Your task to perform on an android device: turn pop-ups on in chrome Image 0: 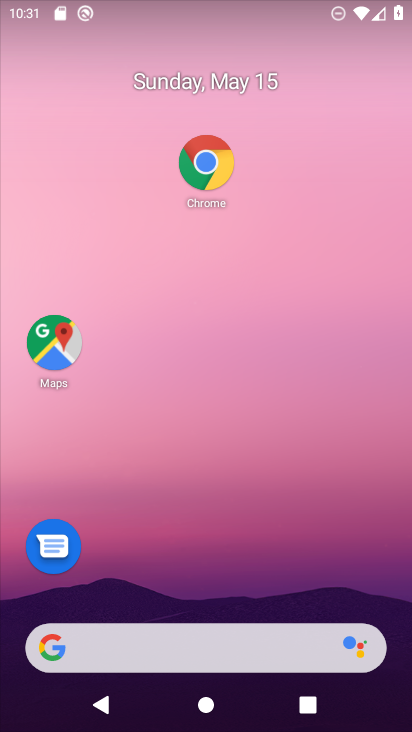
Step 0: drag from (273, 591) to (321, 267)
Your task to perform on an android device: turn pop-ups on in chrome Image 1: 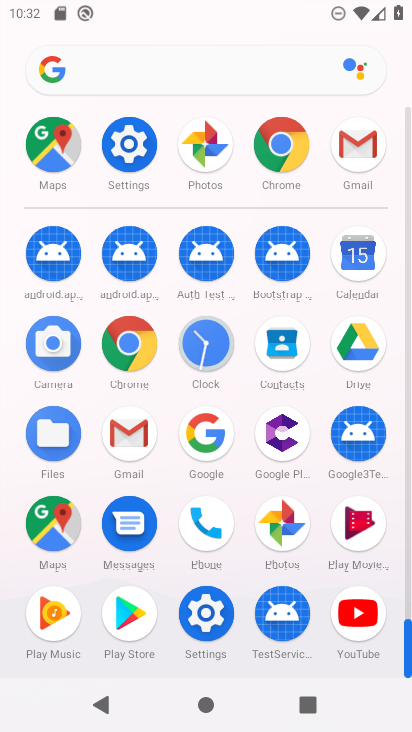
Step 1: click (291, 139)
Your task to perform on an android device: turn pop-ups on in chrome Image 2: 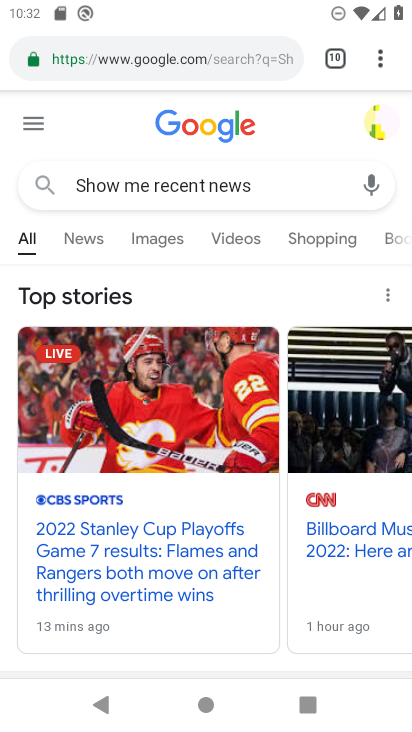
Step 2: click (360, 59)
Your task to perform on an android device: turn pop-ups on in chrome Image 3: 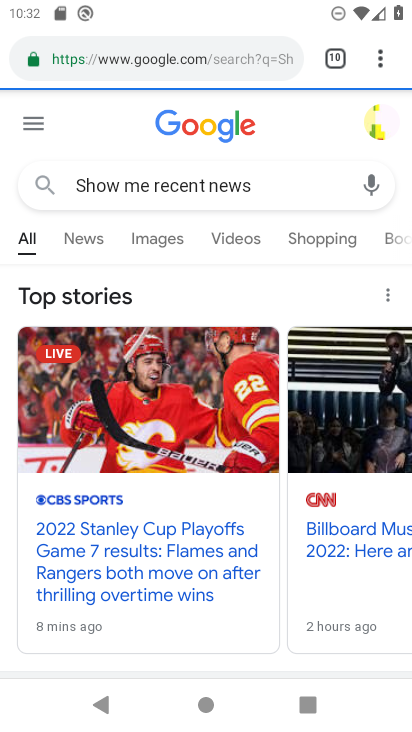
Step 3: click (369, 60)
Your task to perform on an android device: turn pop-ups on in chrome Image 4: 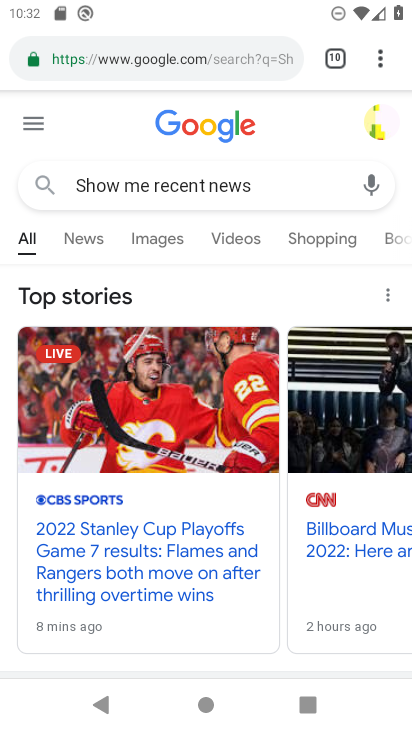
Step 4: click (373, 58)
Your task to perform on an android device: turn pop-ups on in chrome Image 5: 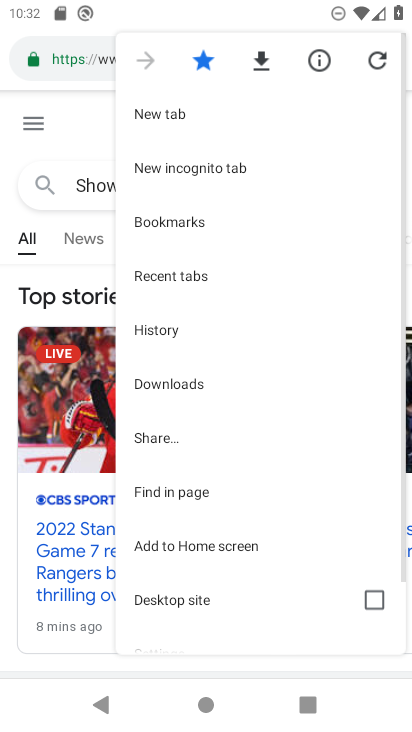
Step 5: drag from (196, 565) to (227, 221)
Your task to perform on an android device: turn pop-ups on in chrome Image 6: 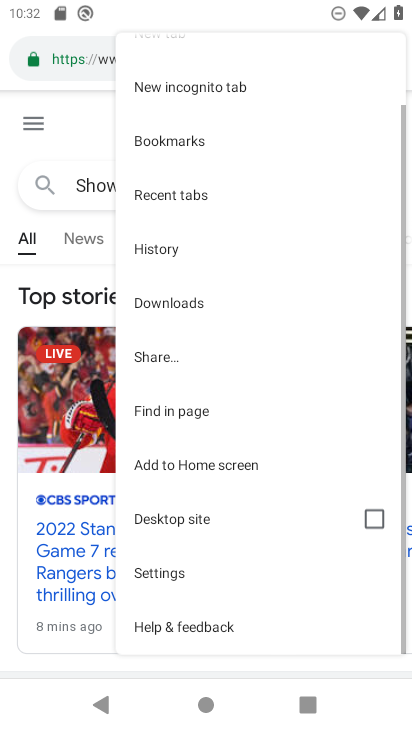
Step 6: click (154, 568)
Your task to perform on an android device: turn pop-ups on in chrome Image 7: 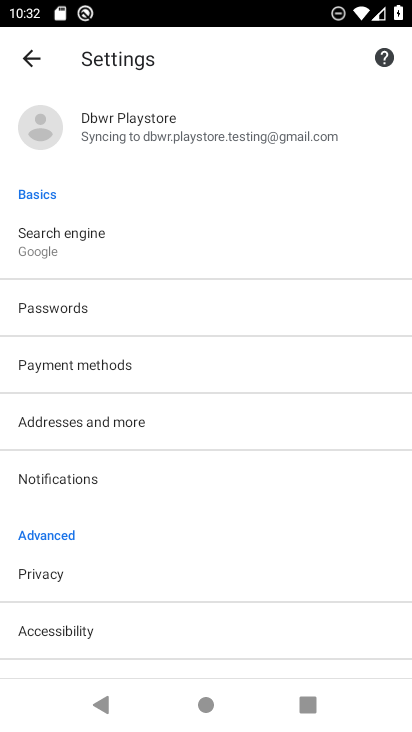
Step 7: drag from (166, 562) to (249, 171)
Your task to perform on an android device: turn pop-ups on in chrome Image 8: 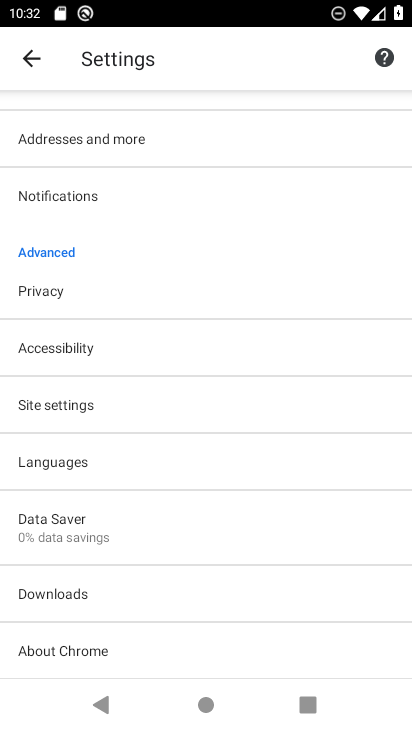
Step 8: click (151, 408)
Your task to perform on an android device: turn pop-ups on in chrome Image 9: 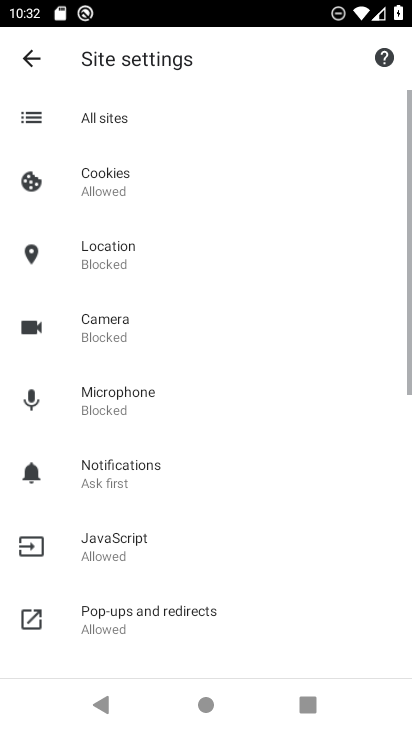
Step 9: click (164, 640)
Your task to perform on an android device: turn pop-ups on in chrome Image 10: 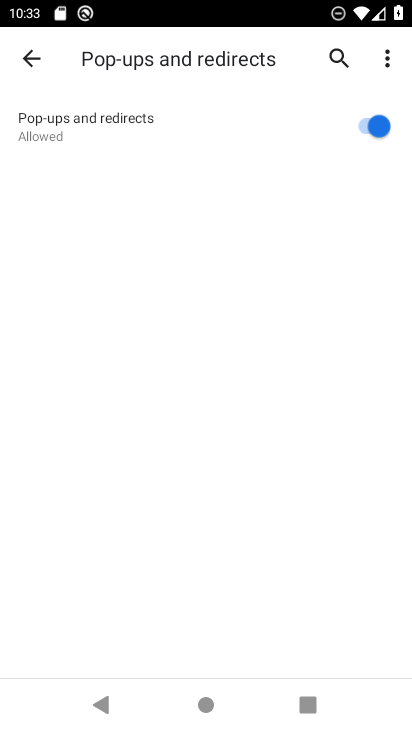
Step 10: task complete